Your task to perform on an android device: Open Youtube and go to the subscriptions tab Image 0: 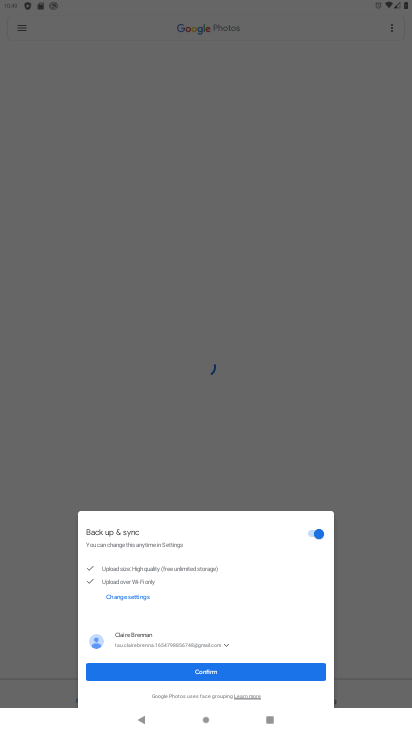
Step 0: press home button
Your task to perform on an android device: Open Youtube and go to the subscriptions tab Image 1: 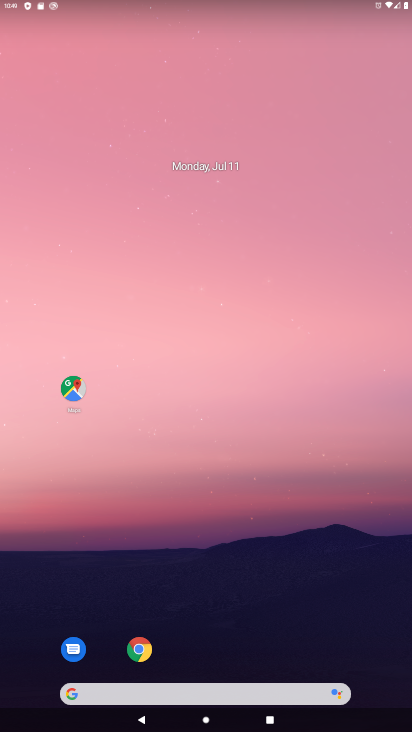
Step 1: drag from (367, 561) to (306, 114)
Your task to perform on an android device: Open Youtube and go to the subscriptions tab Image 2: 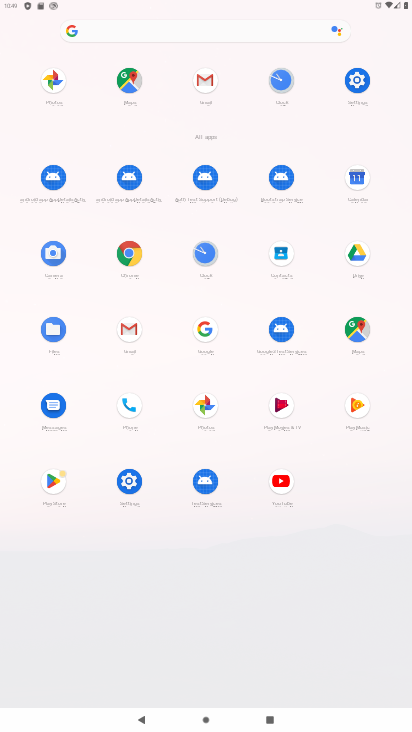
Step 2: click (278, 476)
Your task to perform on an android device: Open Youtube and go to the subscriptions tab Image 3: 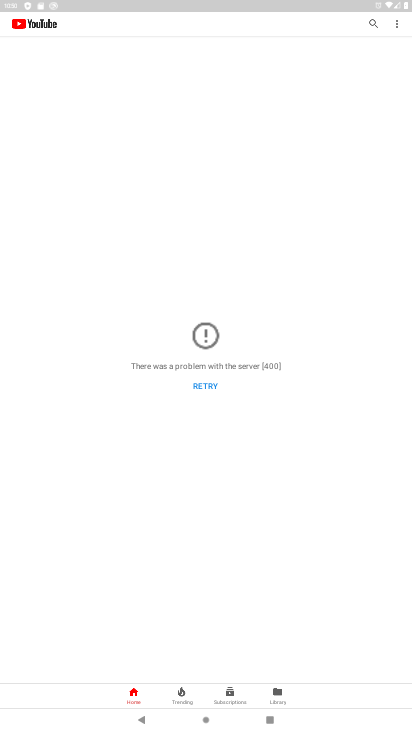
Step 3: click (229, 695)
Your task to perform on an android device: Open Youtube and go to the subscriptions tab Image 4: 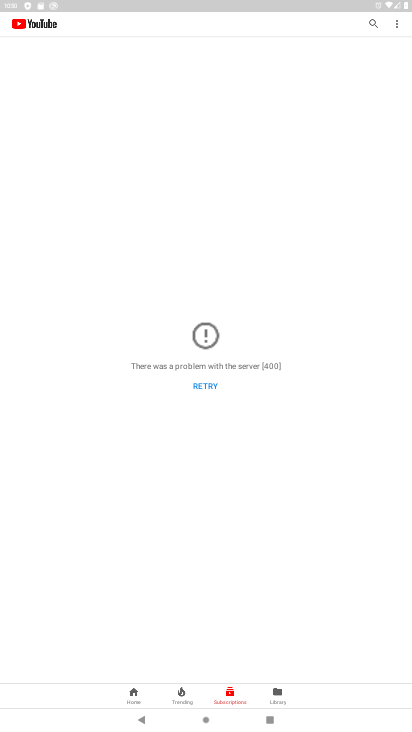
Step 4: task complete